Your task to perform on an android device: Clear all items from cart on amazon. Search for "dell xps" on amazon, select the first entry, add it to the cart, then select checkout. Image 0: 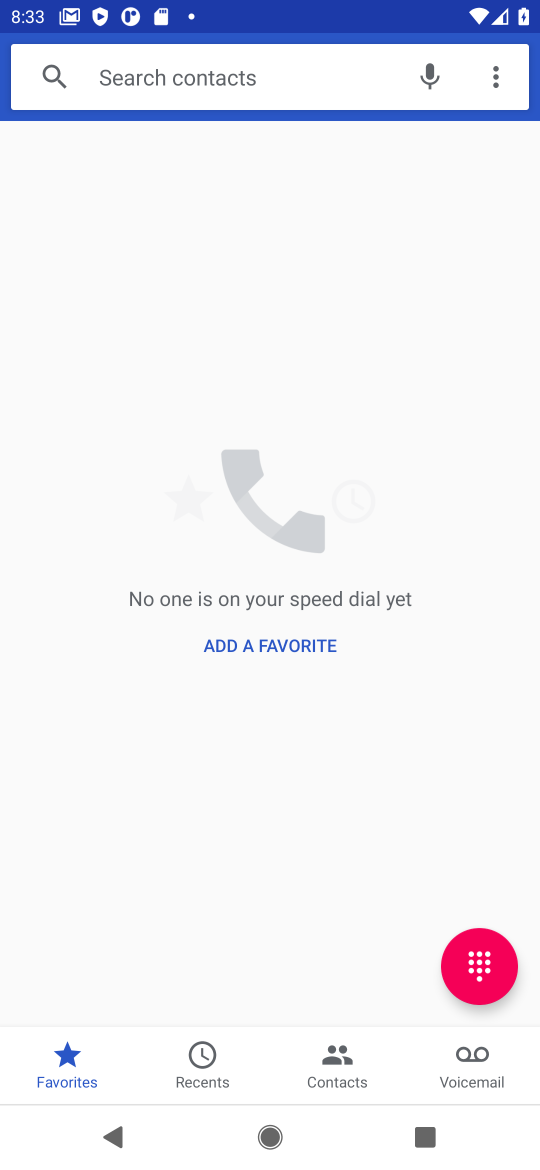
Step 0: press home button
Your task to perform on an android device: Clear all items from cart on amazon. Search for "dell xps" on amazon, select the first entry, add it to the cart, then select checkout. Image 1: 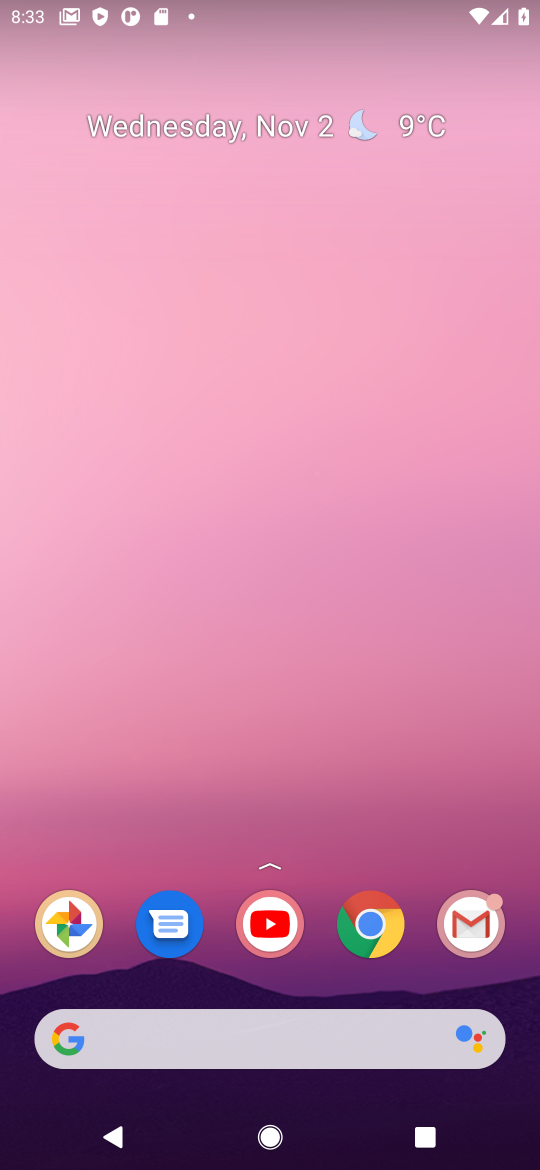
Step 1: click (384, 925)
Your task to perform on an android device: Clear all items from cart on amazon. Search for "dell xps" on amazon, select the first entry, add it to the cart, then select checkout. Image 2: 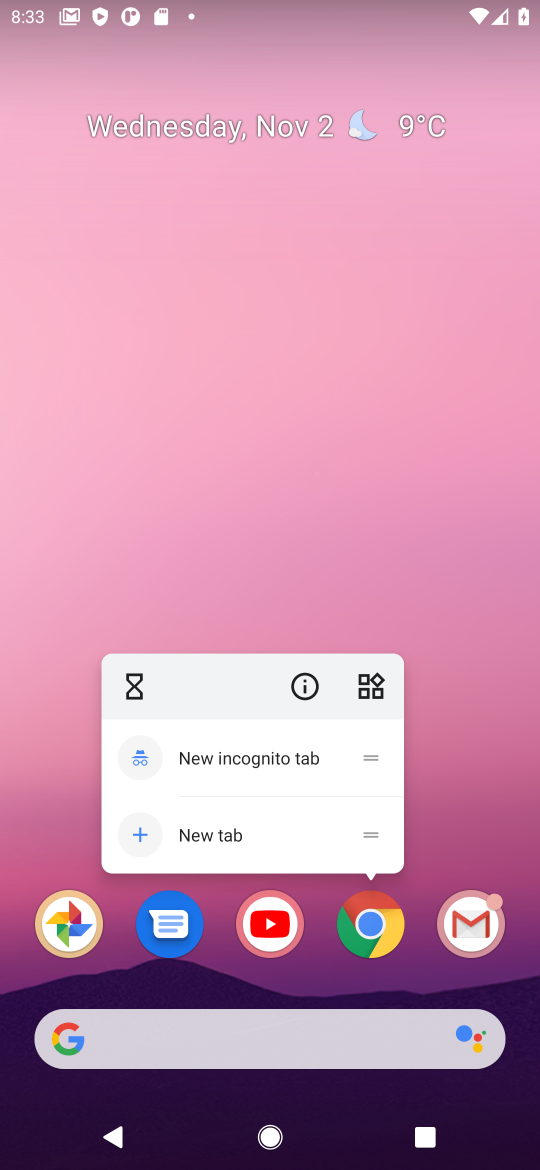
Step 2: click (384, 921)
Your task to perform on an android device: Clear all items from cart on amazon. Search for "dell xps" on amazon, select the first entry, add it to the cart, then select checkout. Image 3: 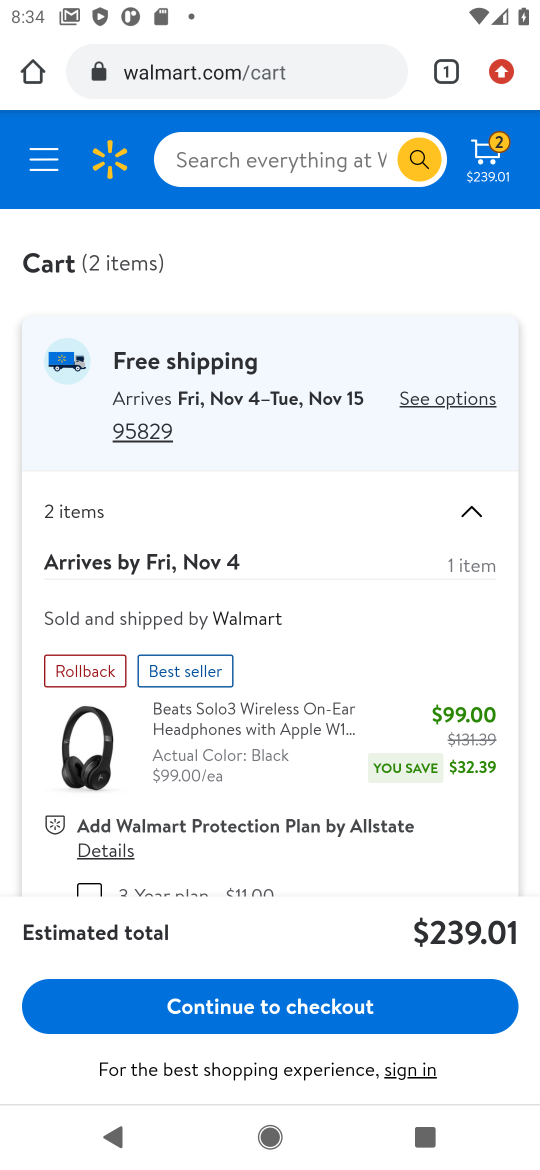
Step 3: click (193, 75)
Your task to perform on an android device: Clear all items from cart on amazon. Search for "dell xps" on amazon, select the first entry, add it to the cart, then select checkout. Image 4: 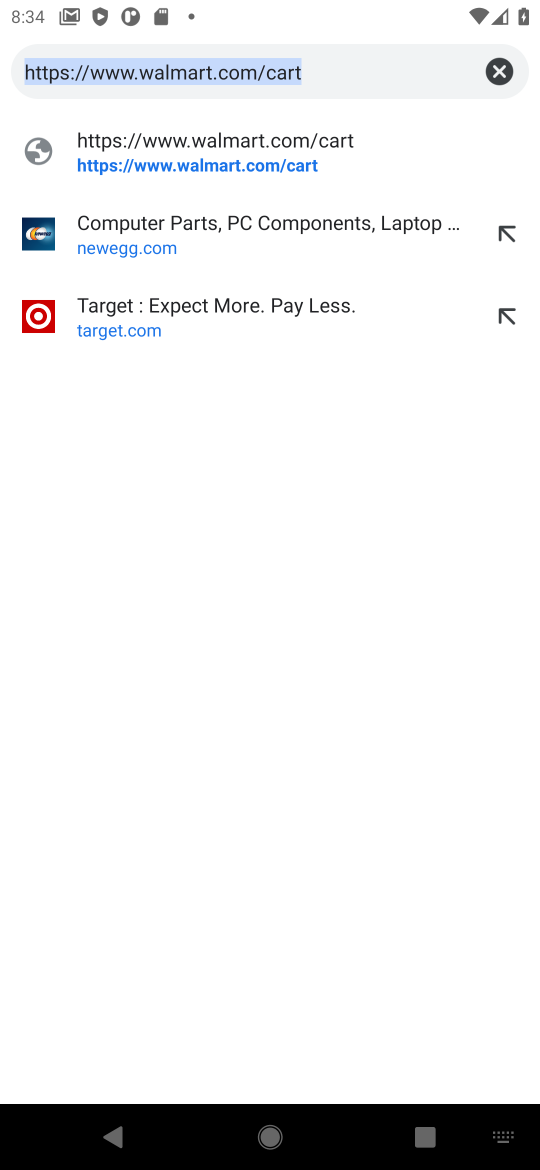
Step 4: click (491, 77)
Your task to perform on an android device: Clear all items from cart on amazon. Search for "dell xps" on amazon, select the first entry, add it to the cart, then select checkout. Image 5: 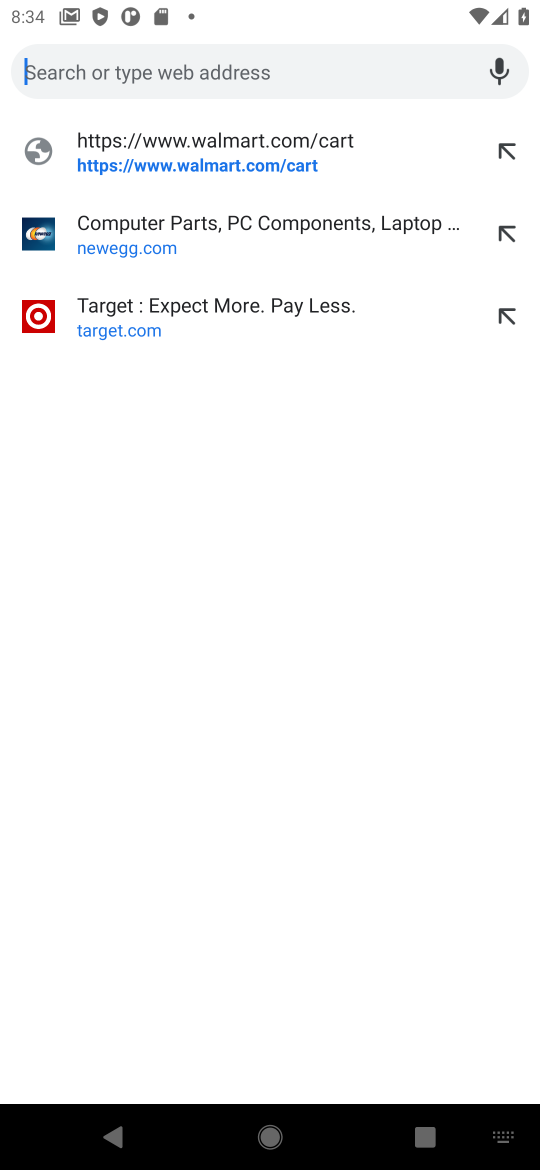
Step 5: type "amazon"
Your task to perform on an android device: Clear all items from cart on amazon. Search for "dell xps" on amazon, select the first entry, add it to the cart, then select checkout. Image 6: 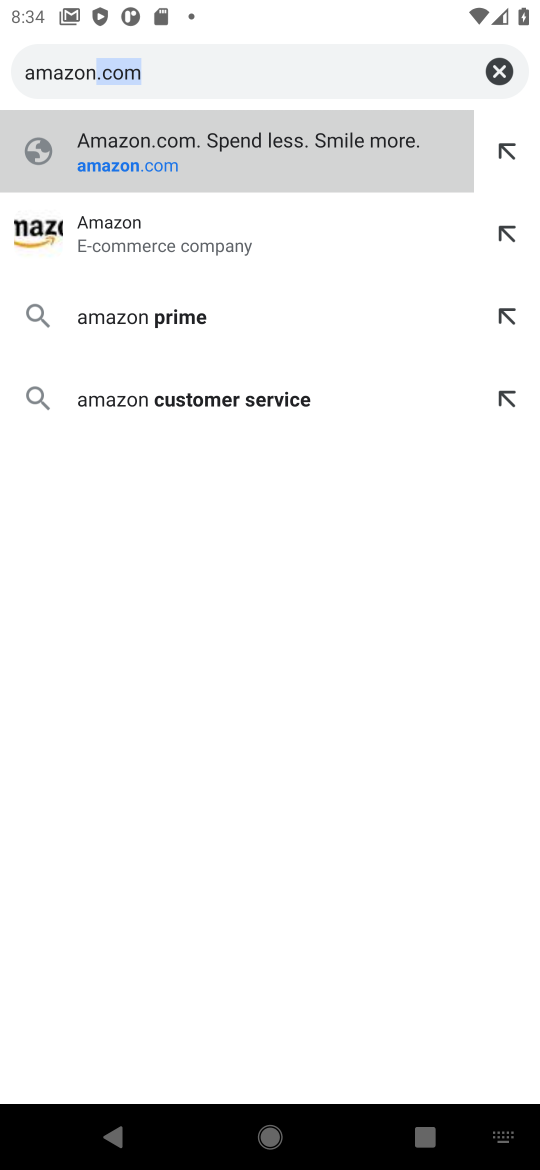
Step 6: type ""
Your task to perform on an android device: Clear all items from cart on amazon. Search for "dell xps" on amazon, select the first entry, add it to the cart, then select checkout. Image 7: 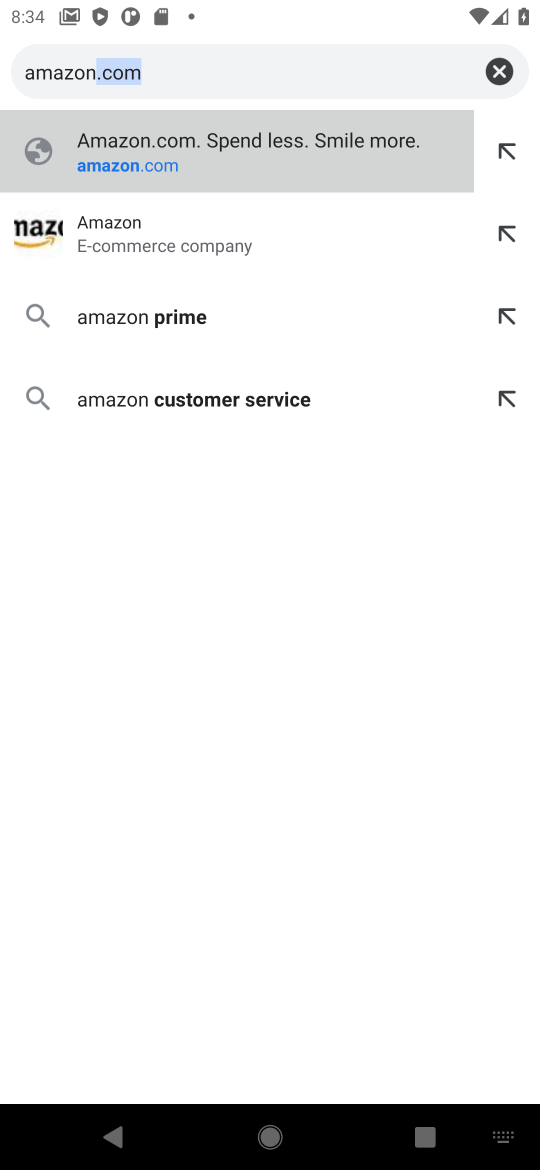
Step 7: click (145, 219)
Your task to perform on an android device: Clear all items from cart on amazon. Search for "dell xps" on amazon, select the first entry, add it to the cart, then select checkout. Image 8: 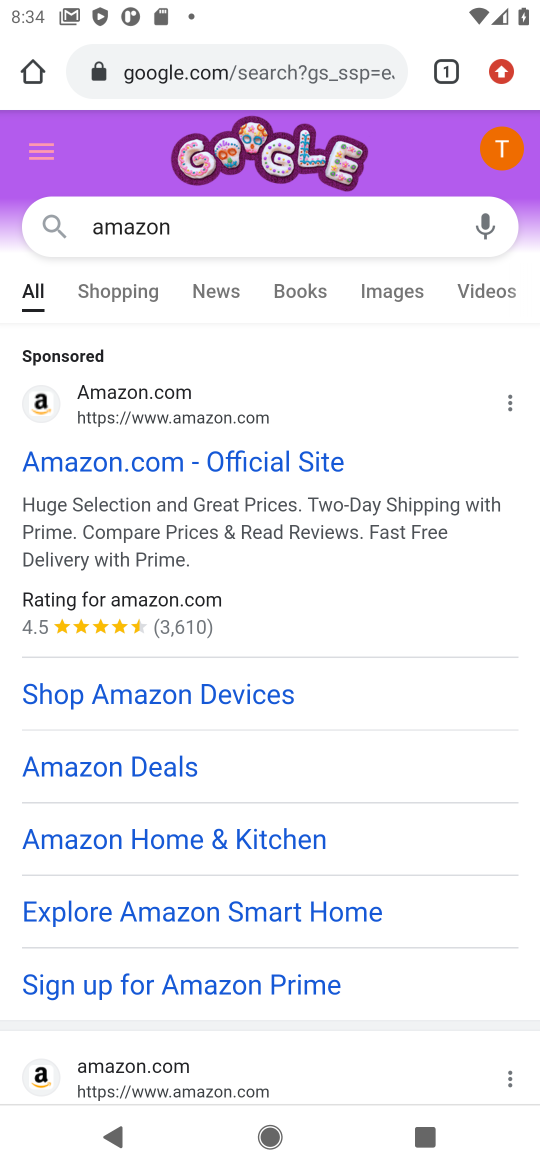
Step 8: click (152, 463)
Your task to perform on an android device: Clear all items from cart on amazon. Search for "dell xps" on amazon, select the first entry, add it to the cart, then select checkout. Image 9: 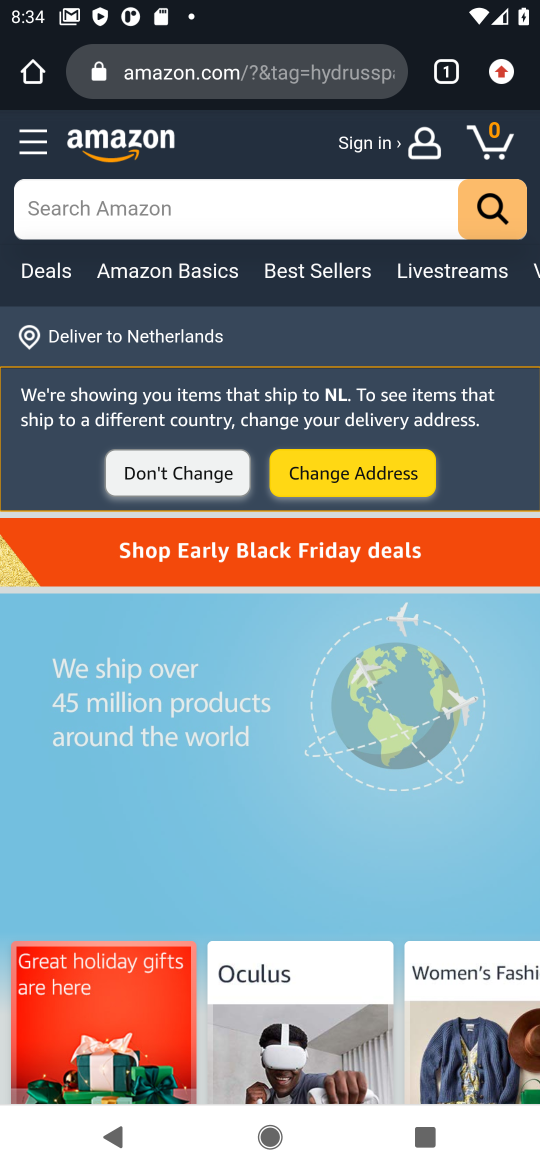
Step 9: click (157, 210)
Your task to perform on an android device: Clear all items from cart on amazon. Search for "dell xps" on amazon, select the first entry, add it to the cart, then select checkout. Image 10: 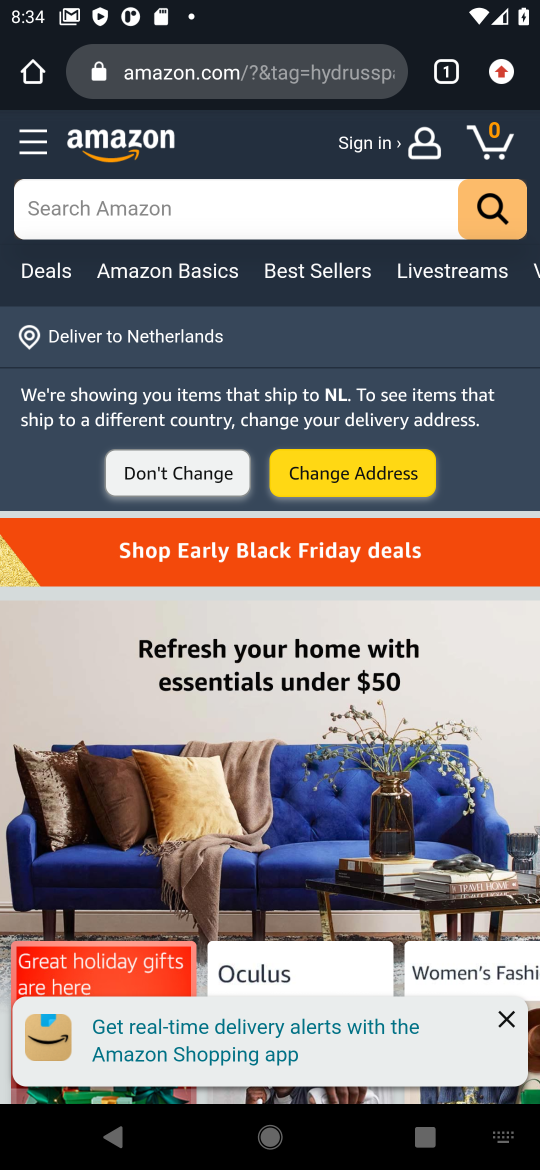
Step 10: type "dell xps"
Your task to perform on an android device: Clear all items from cart on amazon. Search for "dell xps" on amazon, select the first entry, add it to the cart, then select checkout. Image 11: 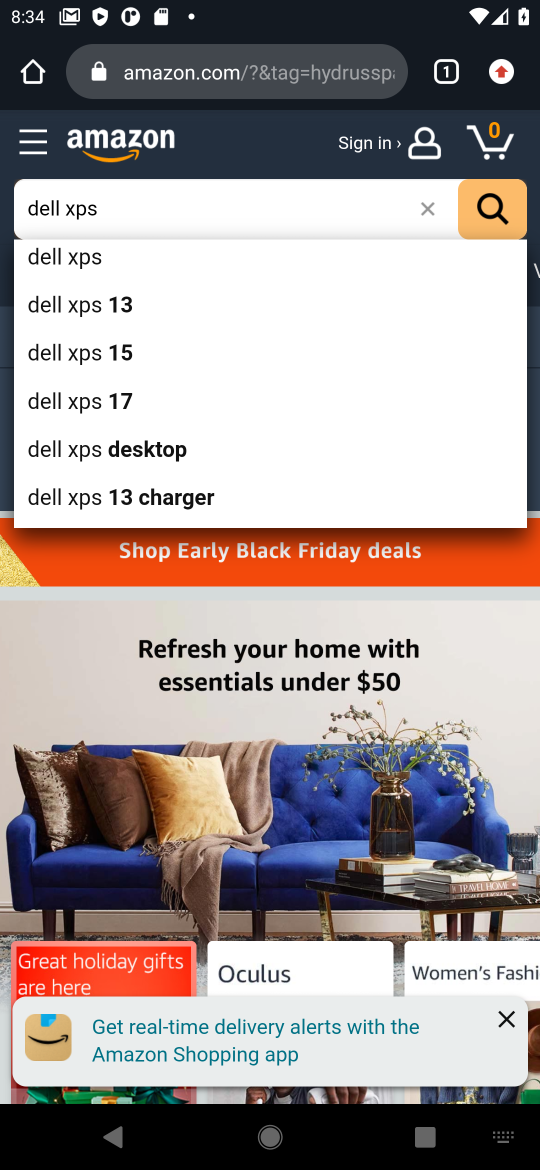
Step 11: click (80, 267)
Your task to perform on an android device: Clear all items from cart on amazon. Search for "dell xps" on amazon, select the first entry, add it to the cart, then select checkout. Image 12: 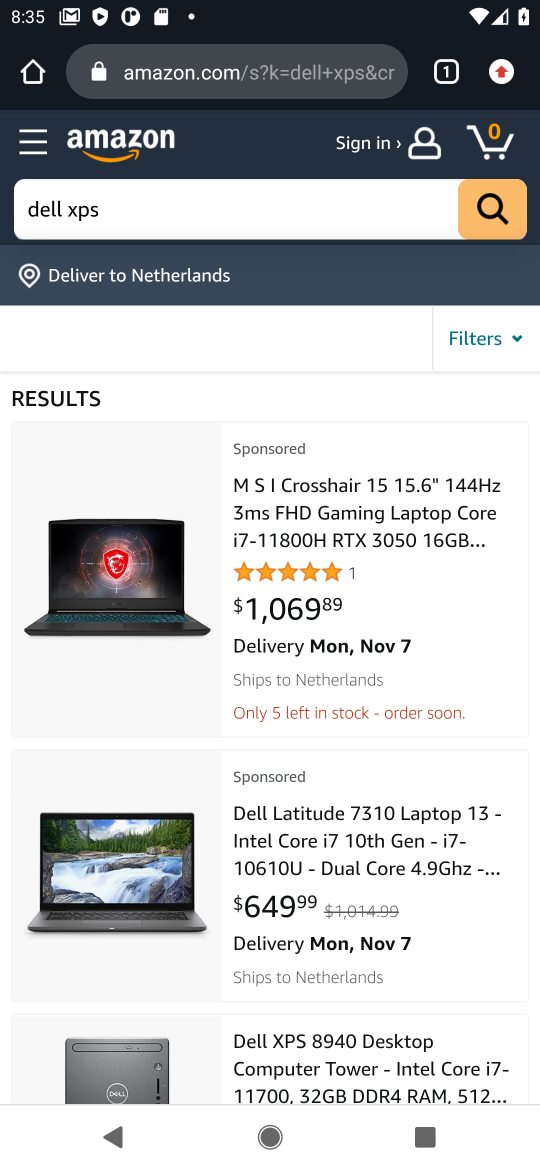
Step 12: drag from (307, 993) to (338, 608)
Your task to perform on an android device: Clear all items from cart on amazon. Search for "dell xps" on amazon, select the first entry, add it to the cart, then select checkout. Image 13: 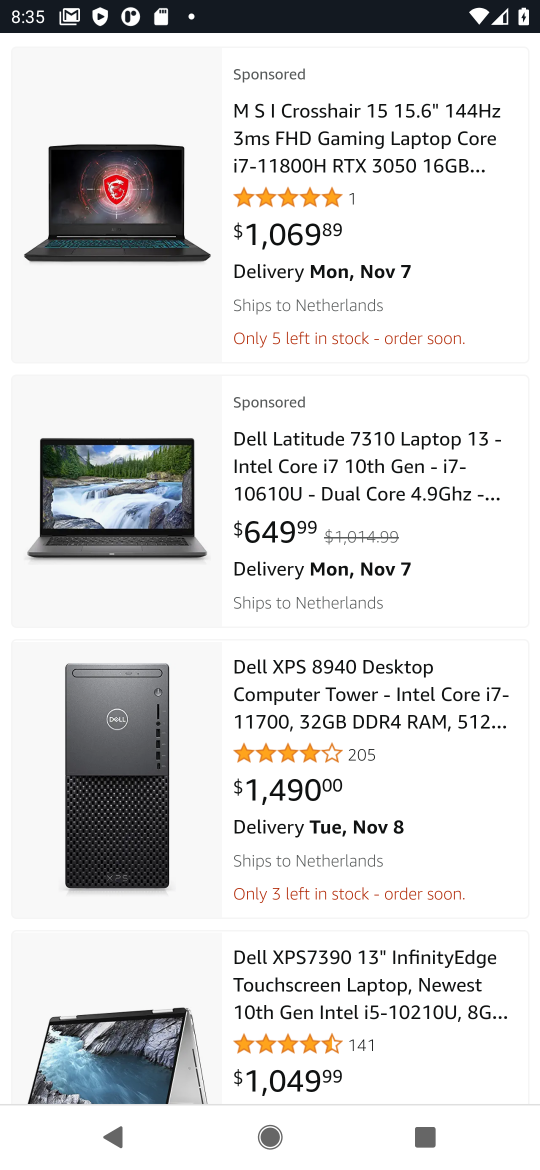
Step 13: click (304, 702)
Your task to perform on an android device: Clear all items from cart on amazon. Search for "dell xps" on amazon, select the first entry, add it to the cart, then select checkout. Image 14: 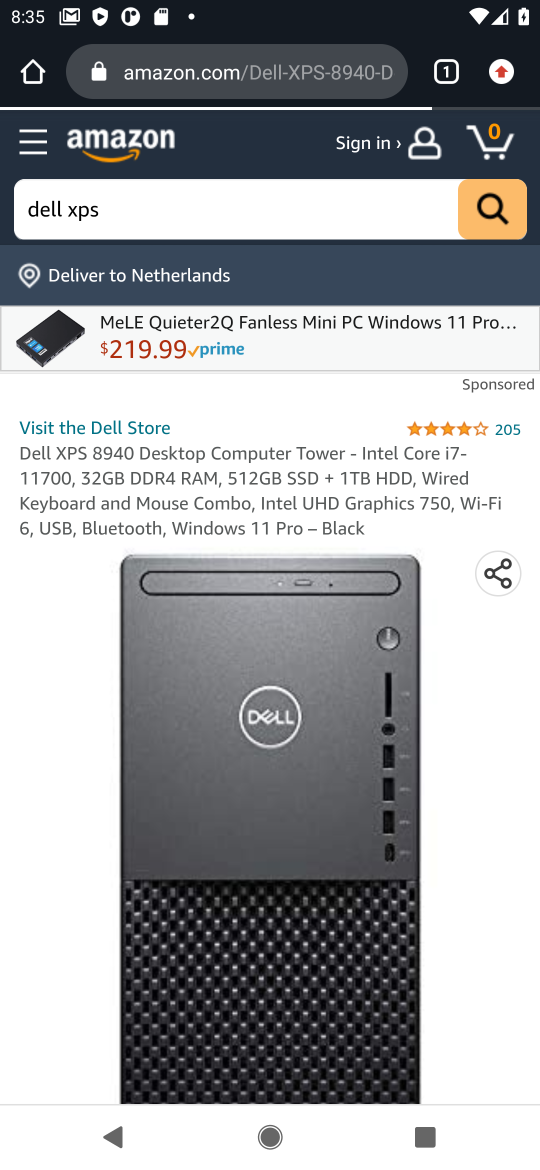
Step 14: drag from (378, 895) to (393, 411)
Your task to perform on an android device: Clear all items from cart on amazon. Search for "dell xps" on amazon, select the first entry, add it to the cart, then select checkout. Image 15: 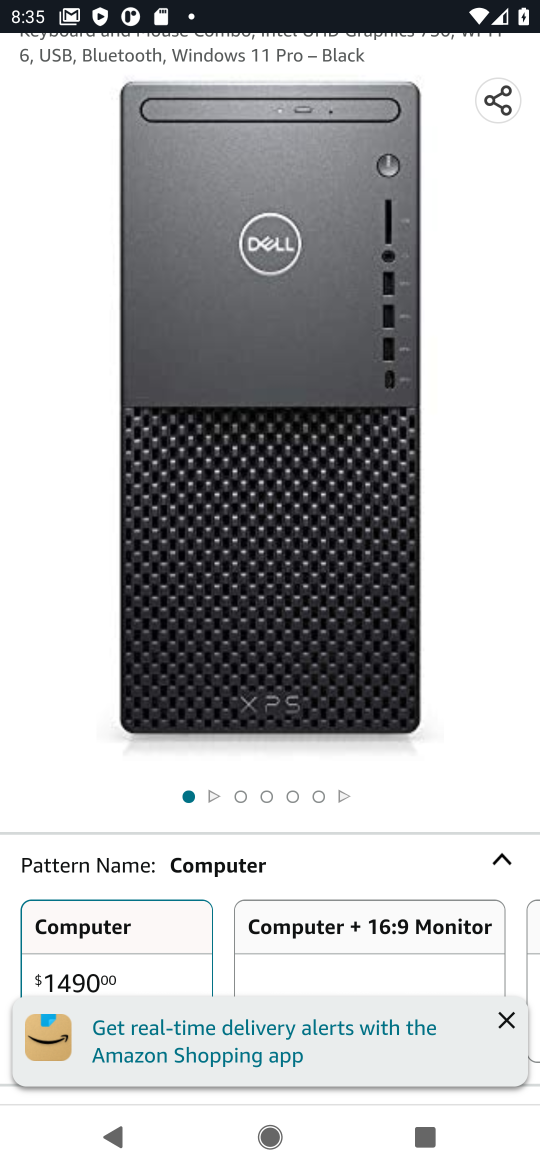
Step 15: click (506, 1019)
Your task to perform on an android device: Clear all items from cart on amazon. Search for "dell xps" on amazon, select the first entry, add it to the cart, then select checkout. Image 16: 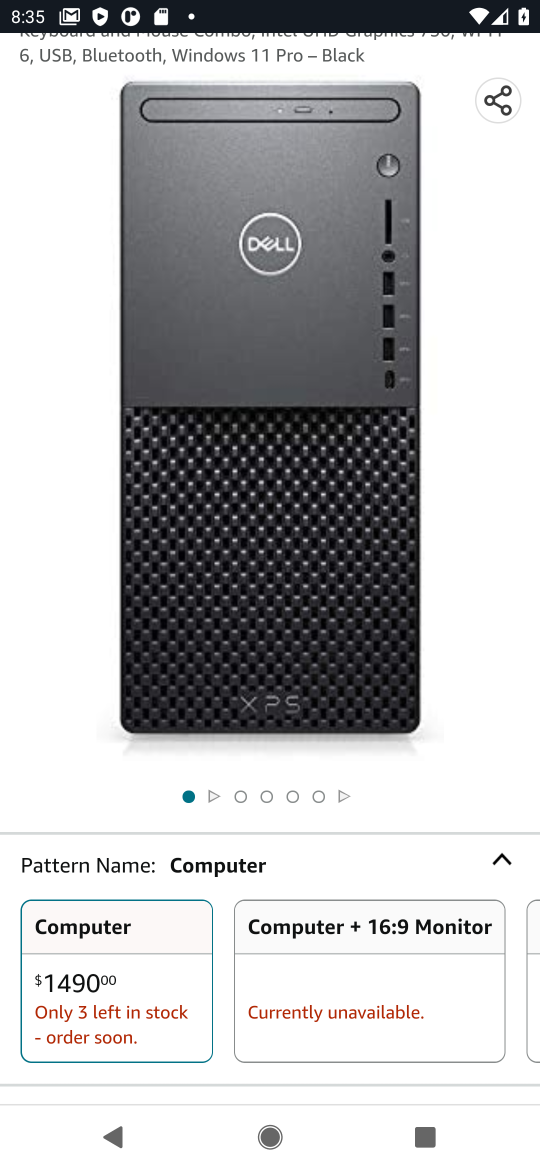
Step 16: drag from (238, 1020) to (253, 394)
Your task to perform on an android device: Clear all items from cart on amazon. Search for "dell xps" on amazon, select the first entry, add it to the cart, then select checkout. Image 17: 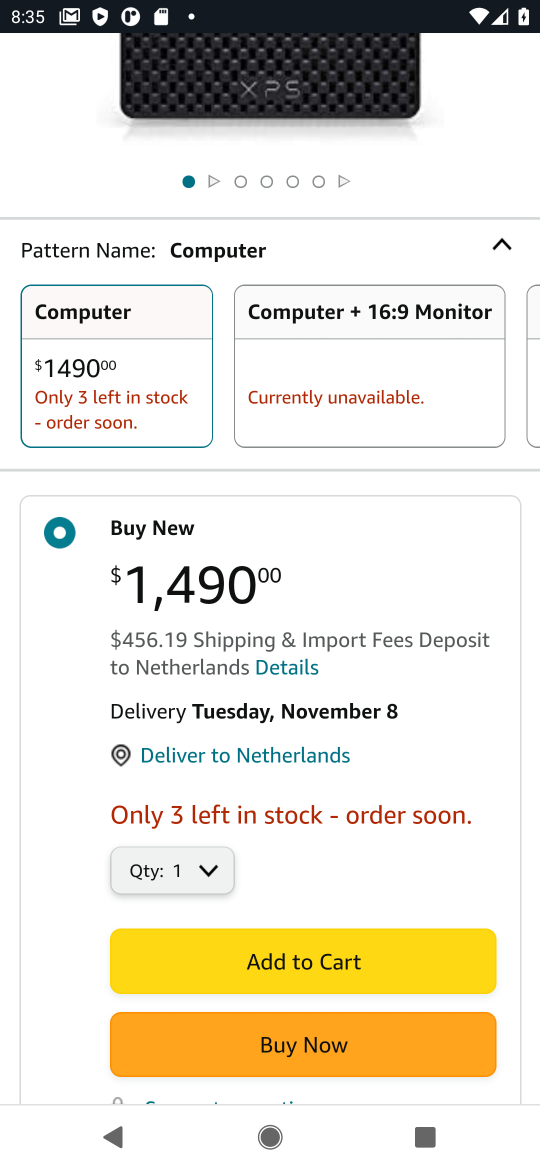
Step 17: click (301, 979)
Your task to perform on an android device: Clear all items from cart on amazon. Search for "dell xps" on amazon, select the first entry, add it to the cart, then select checkout. Image 18: 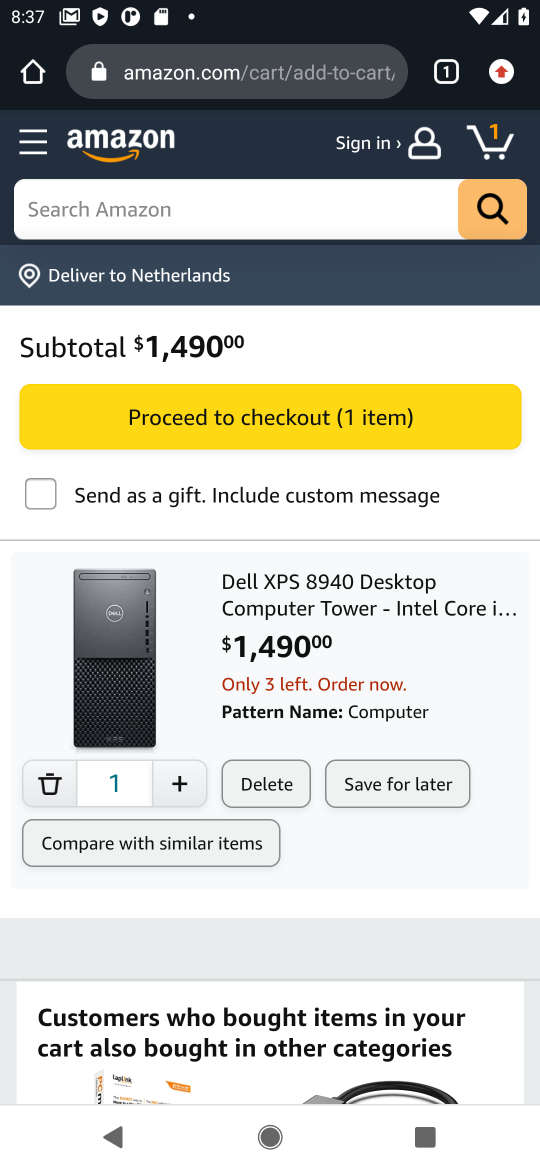
Step 18: click (244, 416)
Your task to perform on an android device: Clear all items from cart on amazon. Search for "dell xps" on amazon, select the first entry, add it to the cart, then select checkout. Image 19: 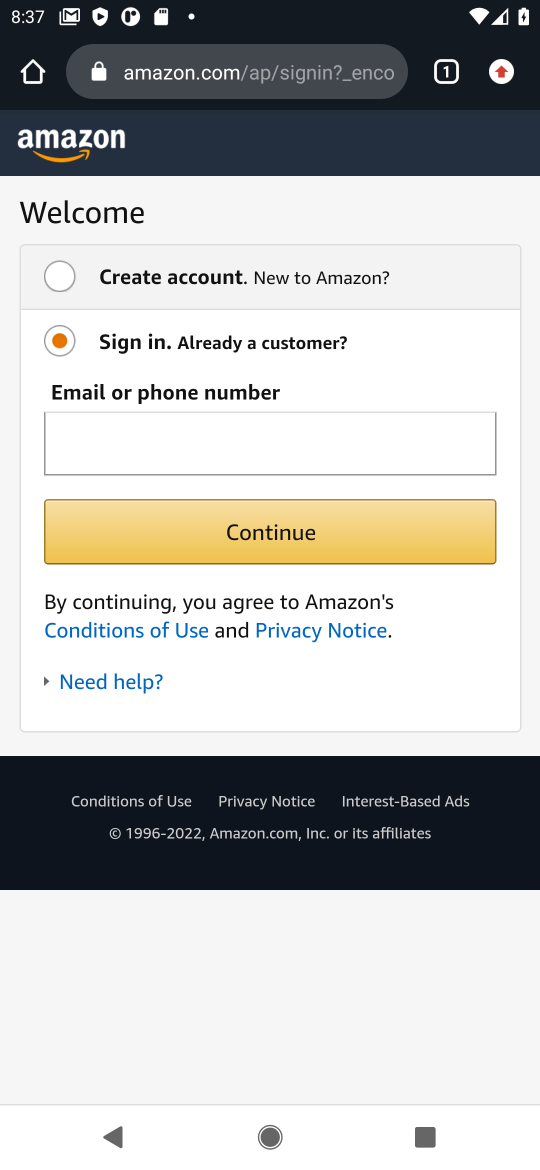
Step 19: task complete